Your task to perform on an android device: toggle show notifications on the lock screen Image 0: 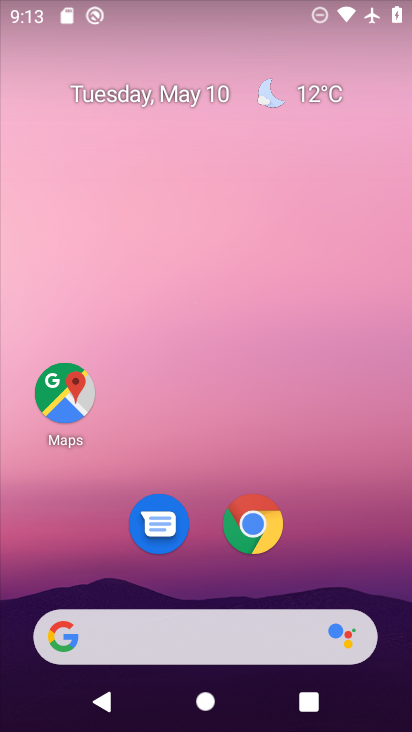
Step 0: drag from (274, 466) to (284, 52)
Your task to perform on an android device: toggle show notifications on the lock screen Image 1: 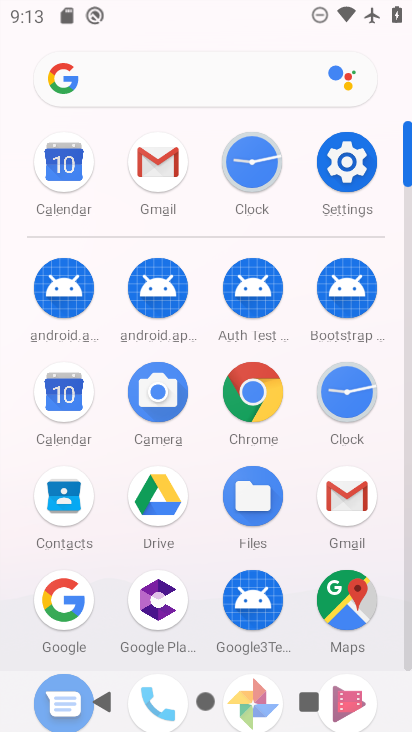
Step 1: click (349, 169)
Your task to perform on an android device: toggle show notifications on the lock screen Image 2: 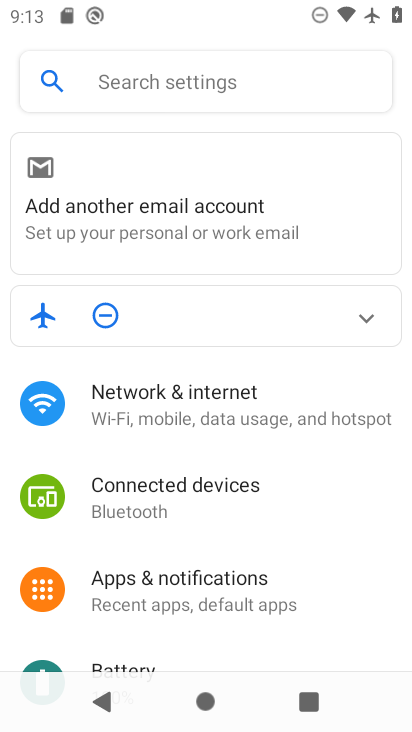
Step 2: click (222, 571)
Your task to perform on an android device: toggle show notifications on the lock screen Image 3: 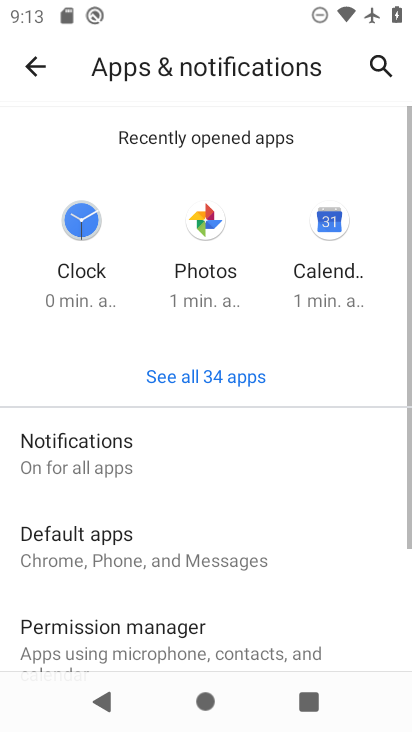
Step 3: click (216, 457)
Your task to perform on an android device: toggle show notifications on the lock screen Image 4: 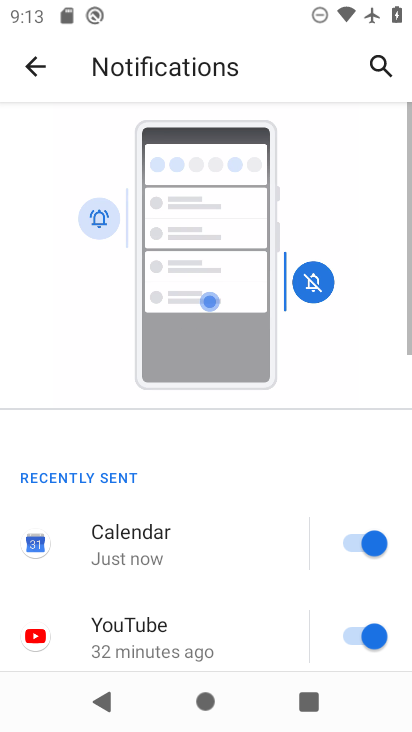
Step 4: drag from (248, 580) to (232, 85)
Your task to perform on an android device: toggle show notifications on the lock screen Image 5: 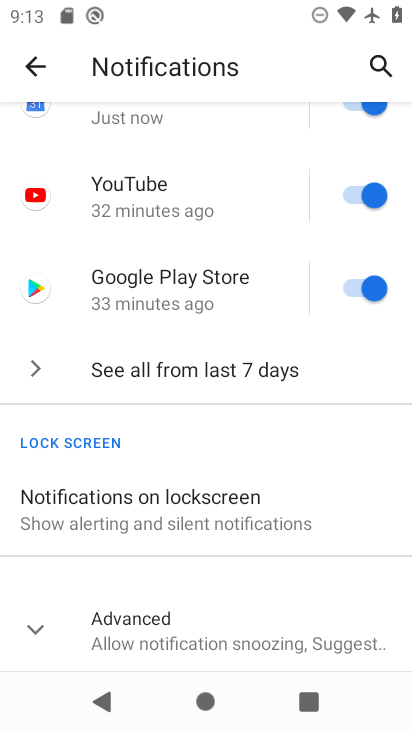
Step 5: click (194, 507)
Your task to perform on an android device: toggle show notifications on the lock screen Image 6: 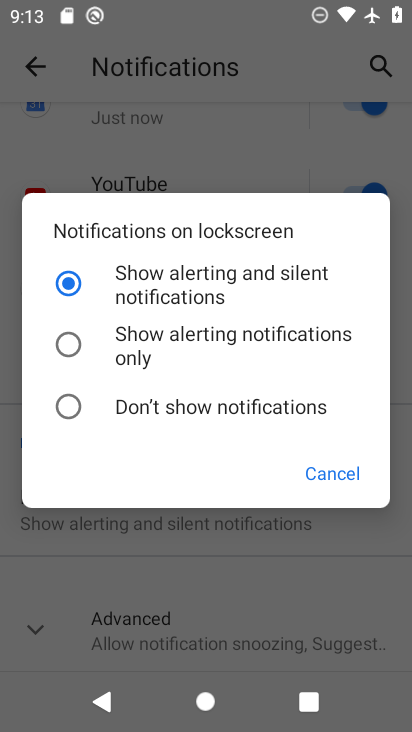
Step 6: click (68, 401)
Your task to perform on an android device: toggle show notifications on the lock screen Image 7: 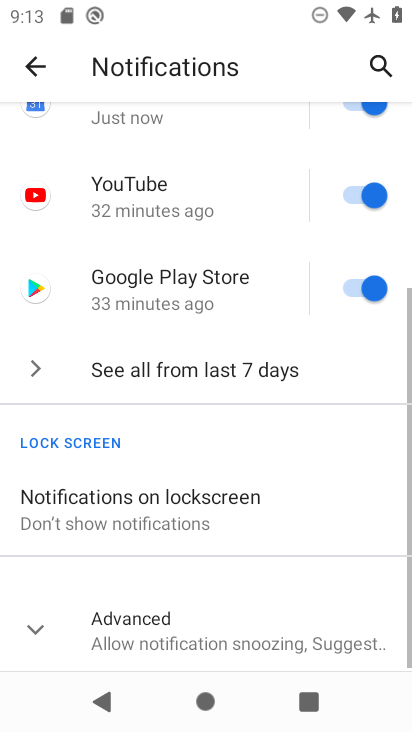
Step 7: task complete